Your task to perform on an android device: Open notification settings Image 0: 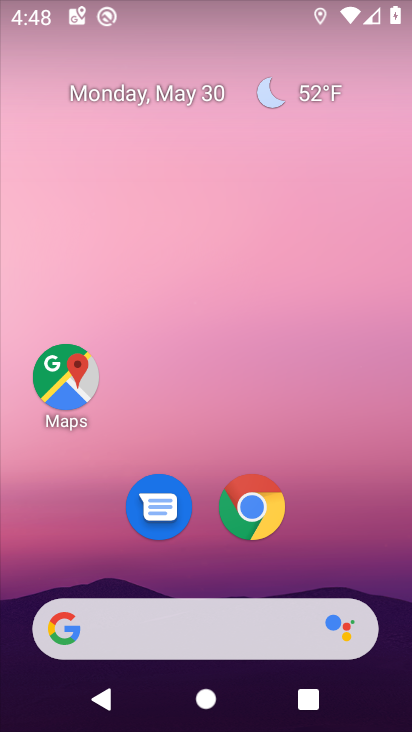
Step 0: press home button
Your task to perform on an android device: Open notification settings Image 1: 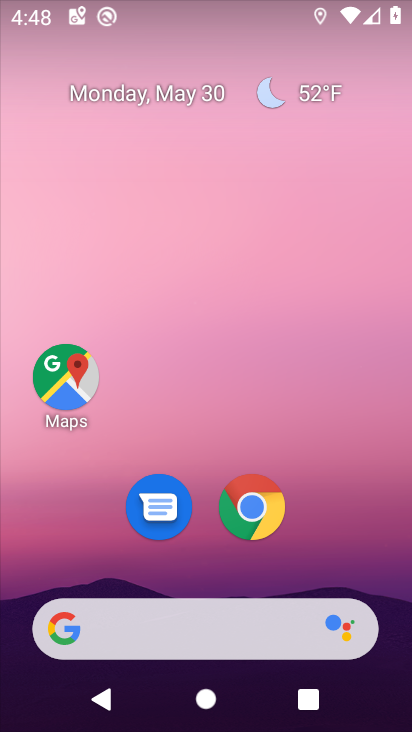
Step 1: drag from (269, 570) to (310, 53)
Your task to perform on an android device: Open notification settings Image 2: 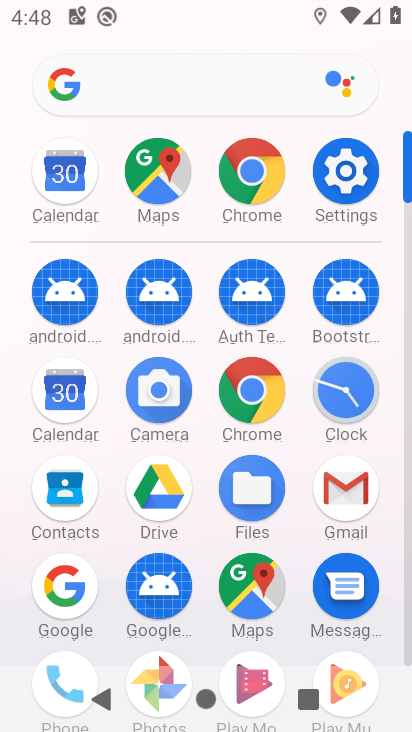
Step 2: click (345, 193)
Your task to perform on an android device: Open notification settings Image 3: 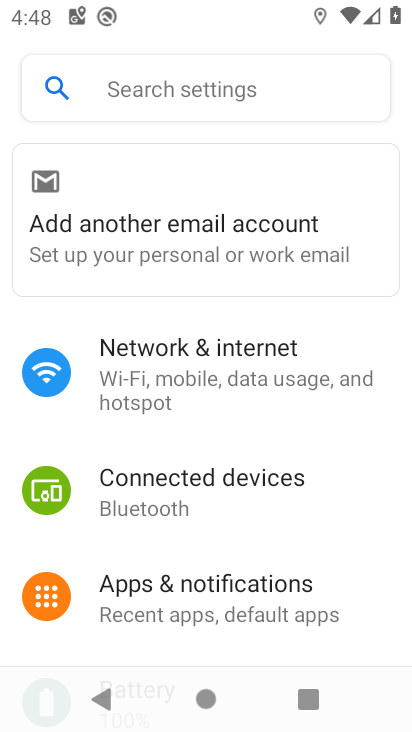
Step 3: click (297, 595)
Your task to perform on an android device: Open notification settings Image 4: 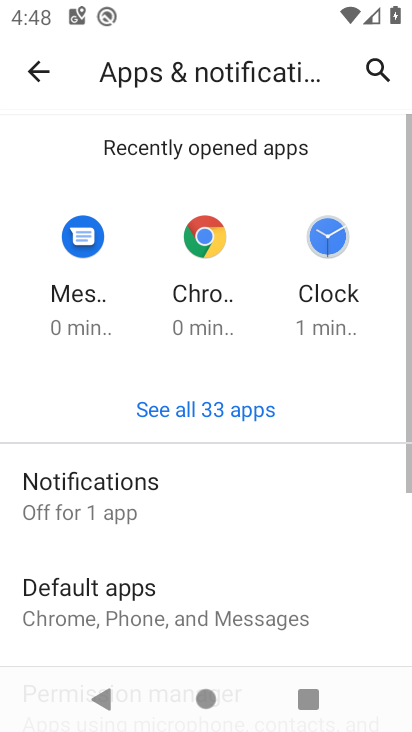
Step 4: click (202, 511)
Your task to perform on an android device: Open notification settings Image 5: 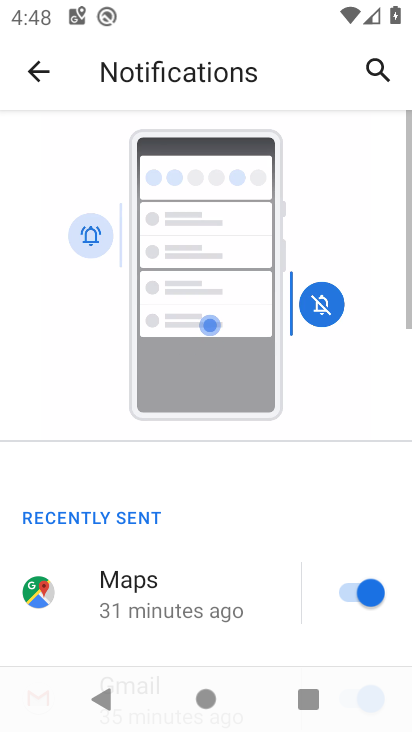
Step 5: task complete